Your task to perform on an android device: set default search engine in the chrome app Image 0: 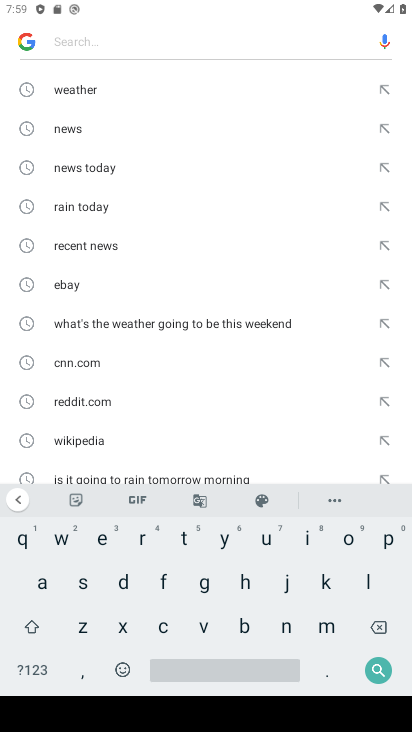
Step 0: drag from (274, 680) to (340, 437)
Your task to perform on an android device: set default search engine in the chrome app Image 1: 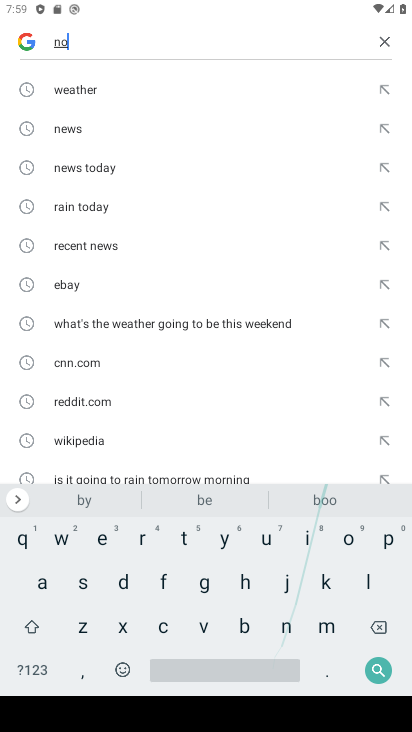
Step 1: press home button
Your task to perform on an android device: set default search engine in the chrome app Image 2: 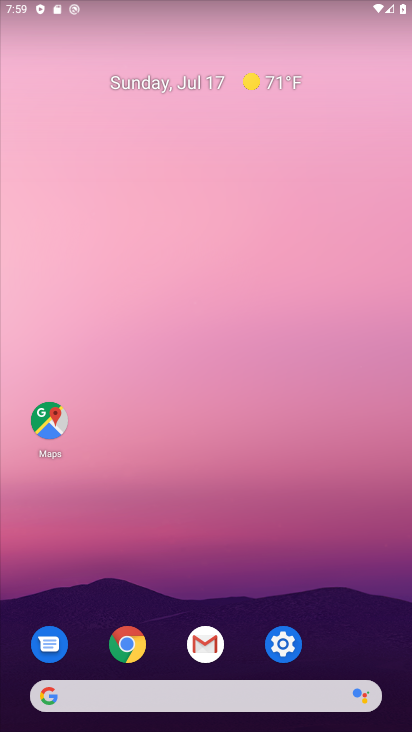
Step 2: drag from (312, 515) to (281, 183)
Your task to perform on an android device: set default search engine in the chrome app Image 3: 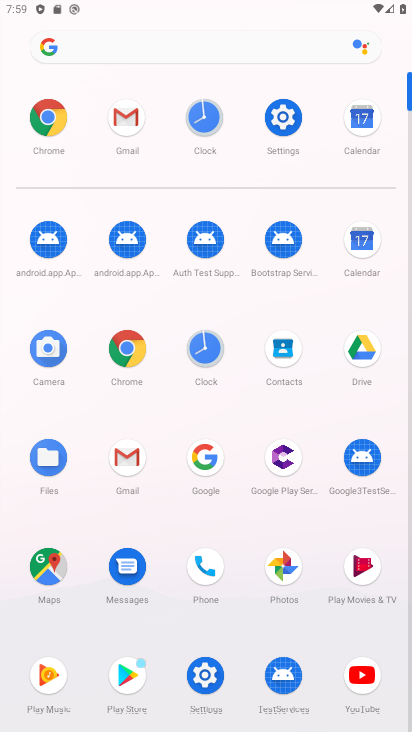
Step 3: click (201, 356)
Your task to perform on an android device: set default search engine in the chrome app Image 4: 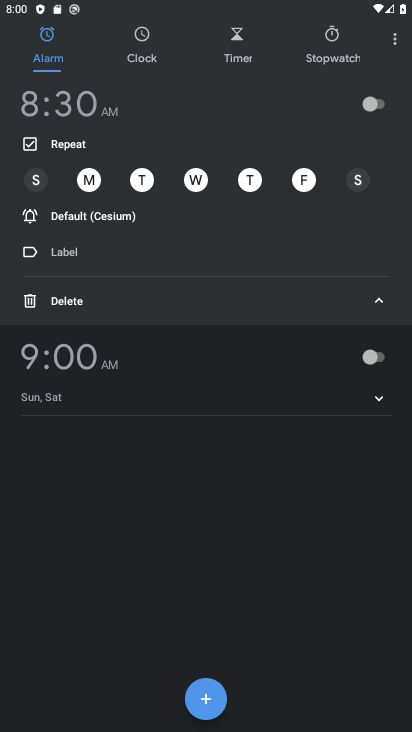
Step 4: press home button
Your task to perform on an android device: set default search engine in the chrome app Image 5: 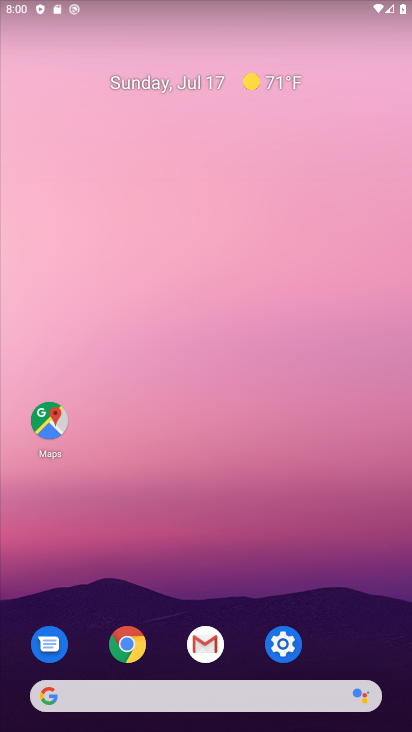
Step 5: click (133, 655)
Your task to perform on an android device: set default search engine in the chrome app Image 6: 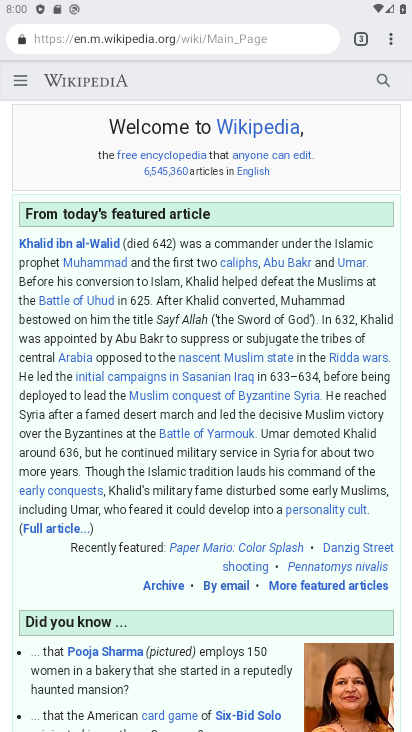
Step 6: click (396, 48)
Your task to perform on an android device: set default search engine in the chrome app Image 7: 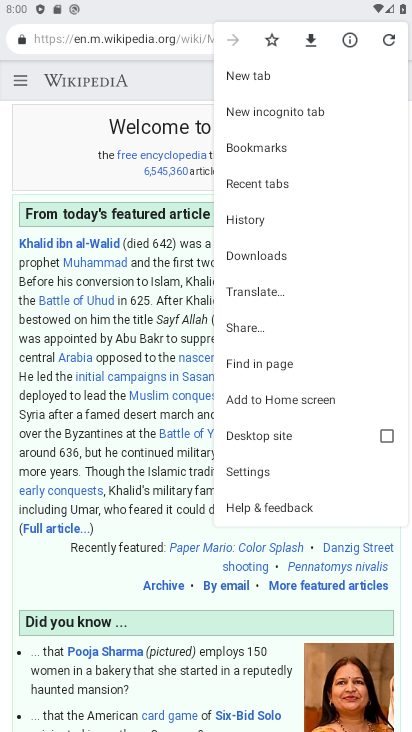
Step 7: click (261, 478)
Your task to perform on an android device: set default search engine in the chrome app Image 8: 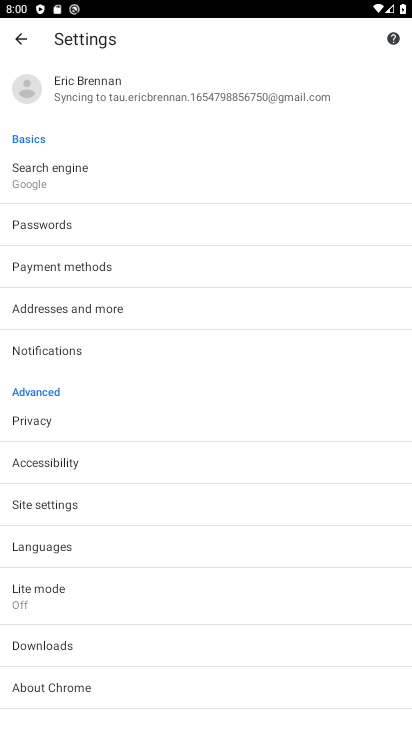
Step 8: click (112, 169)
Your task to perform on an android device: set default search engine in the chrome app Image 9: 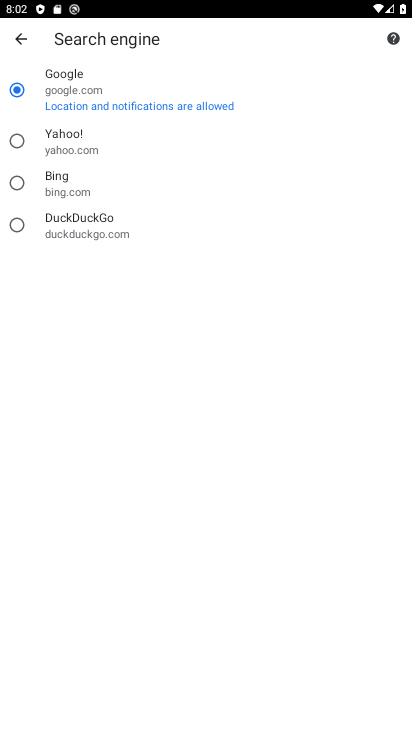
Step 9: task complete